Your task to perform on an android device: Go to Google Image 0: 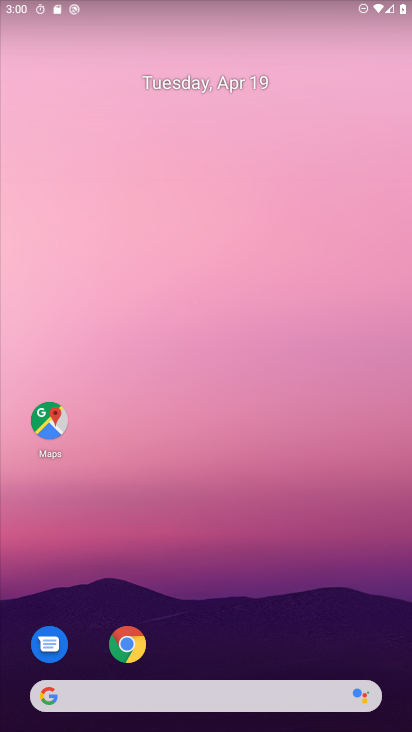
Step 0: drag from (312, 638) to (215, 177)
Your task to perform on an android device: Go to Google Image 1: 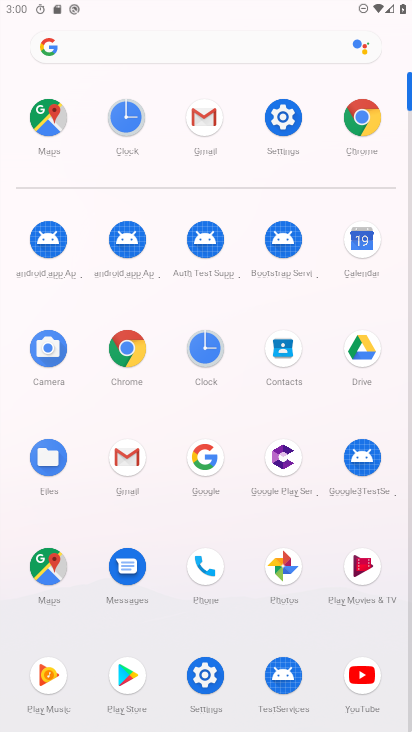
Step 1: click (213, 454)
Your task to perform on an android device: Go to Google Image 2: 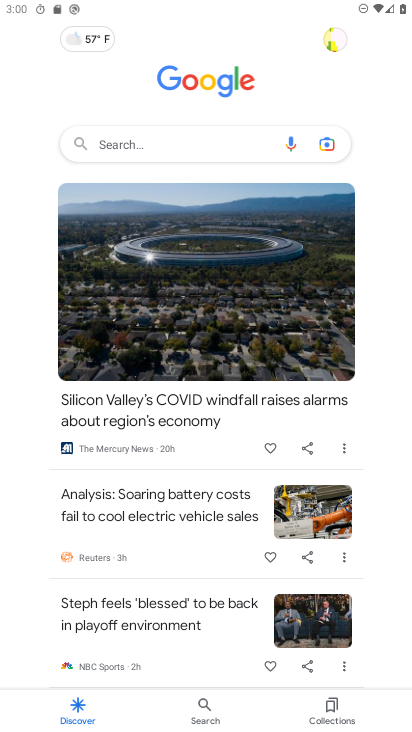
Step 2: task complete